Your task to perform on an android device: check storage Image 0: 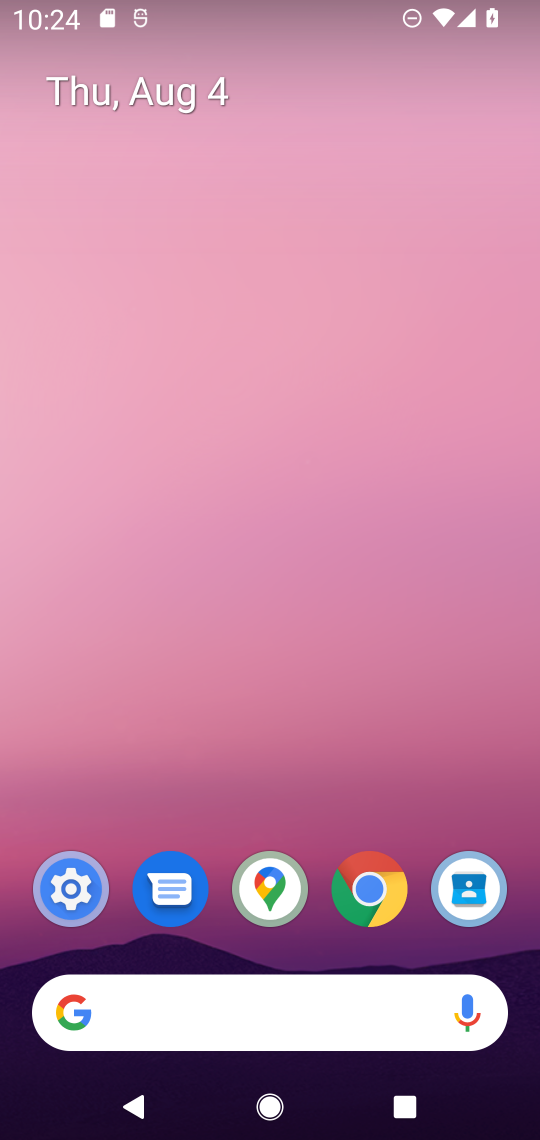
Step 0: press home button
Your task to perform on an android device: check storage Image 1: 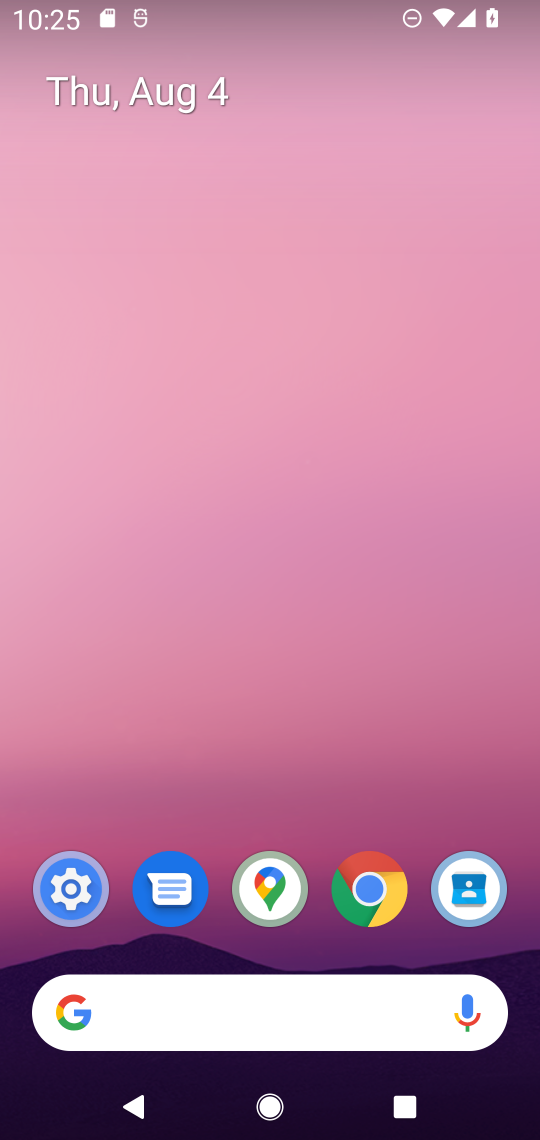
Step 1: drag from (317, 782) to (349, 300)
Your task to perform on an android device: check storage Image 2: 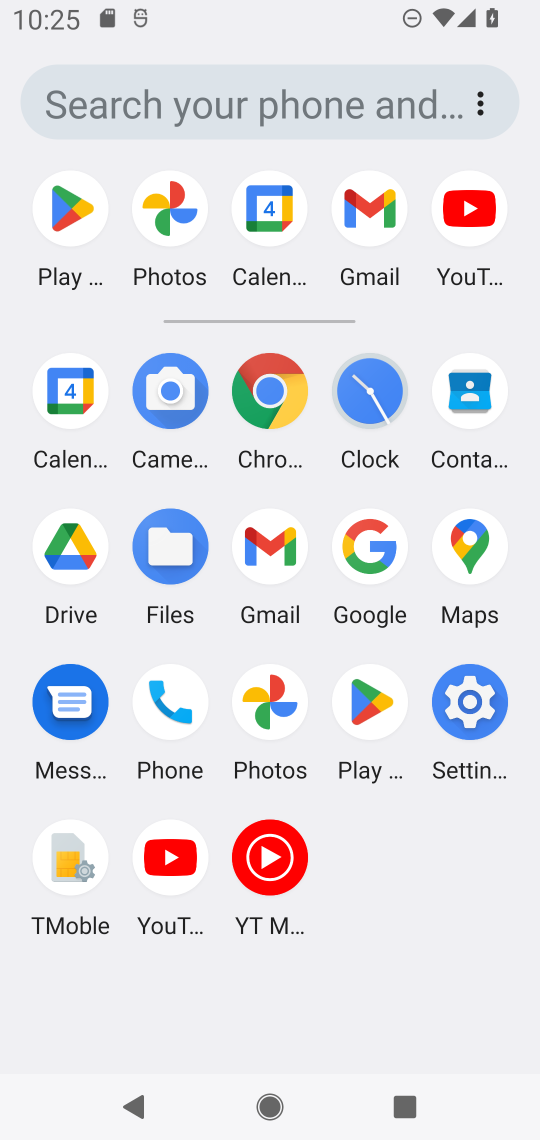
Step 2: click (480, 699)
Your task to perform on an android device: check storage Image 3: 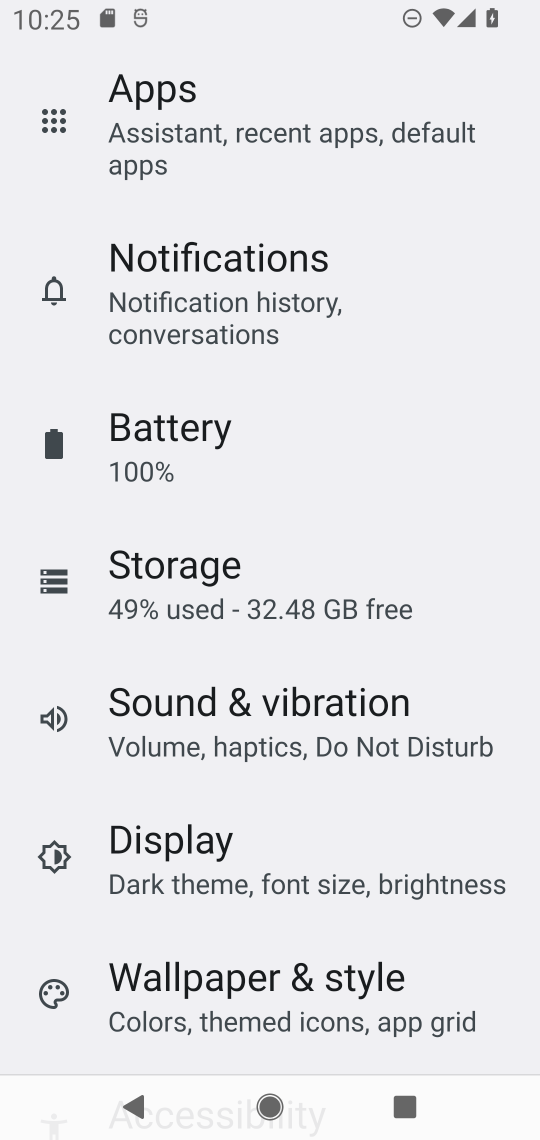
Step 3: drag from (480, 657) to (495, 533)
Your task to perform on an android device: check storage Image 4: 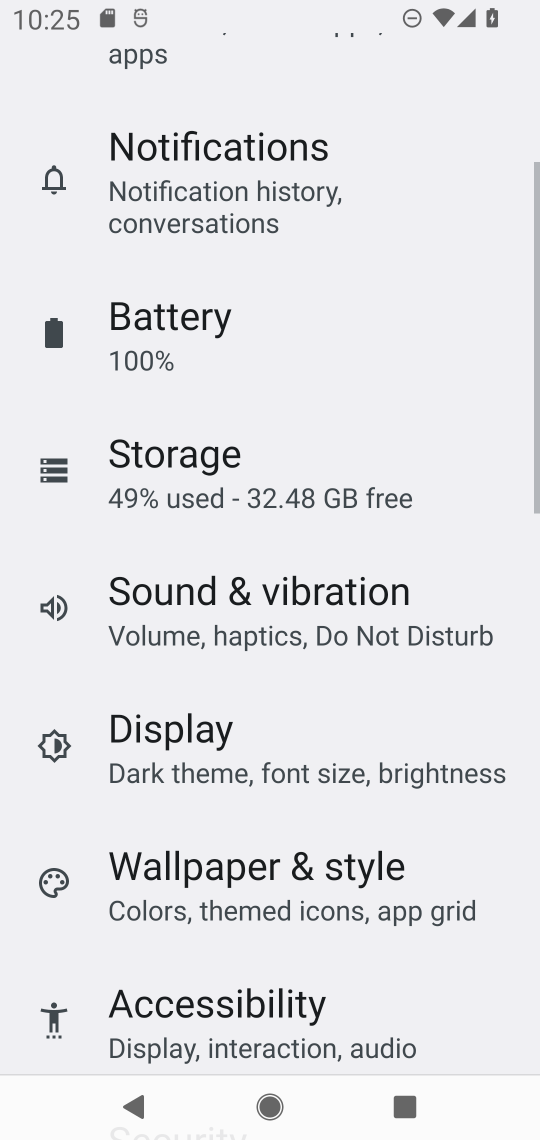
Step 4: drag from (467, 808) to (465, 631)
Your task to perform on an android device: check storage Image 5: 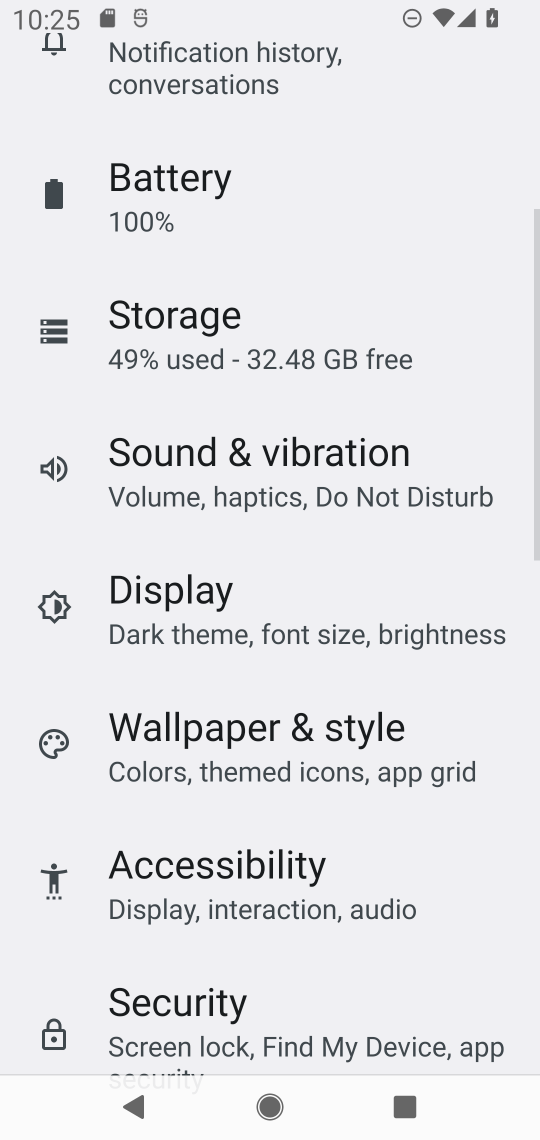
Step 5: drag from (461, 902) to (469, 715)
Your task to perform on an android device: check storage Image 6: 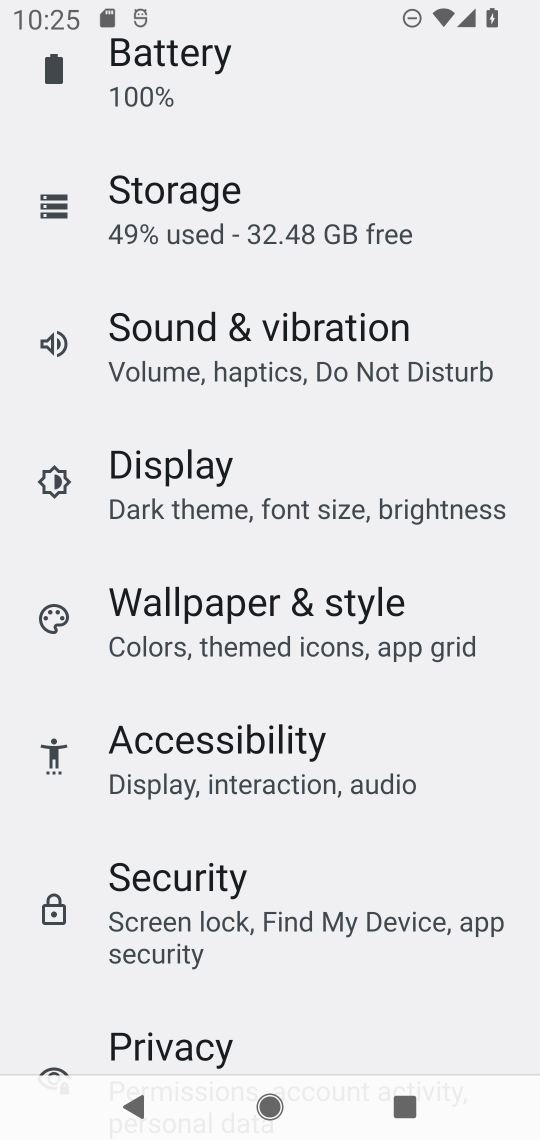
Step 6: drag from (452, 933) to (465, 672)
Your task to perform on an android device: check storage Image 7: 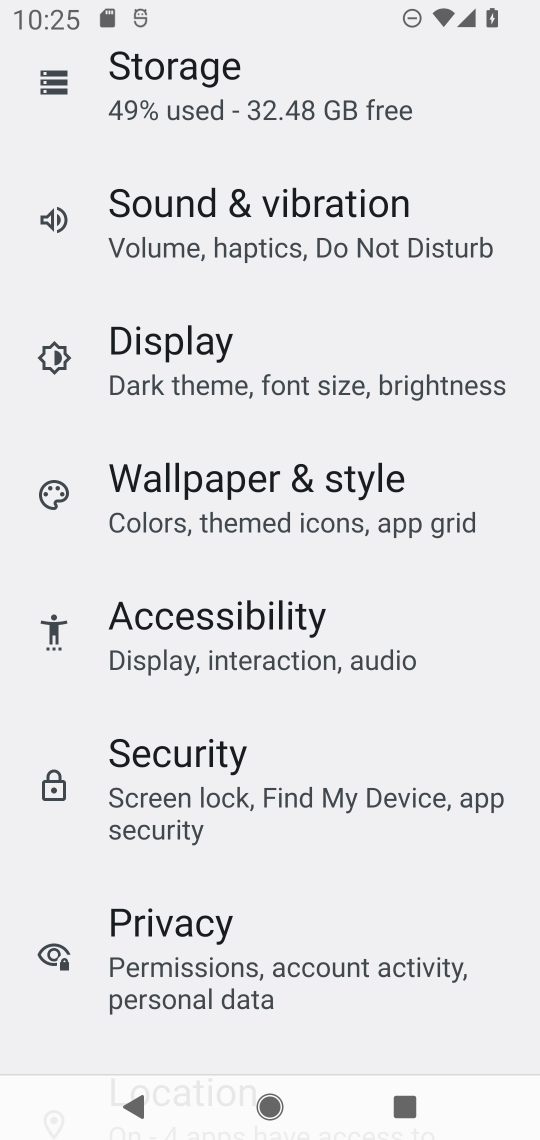
Step 7: drag from (458, 919) to (473, 709)
Your task to perform on an android device: check storage Image 8: 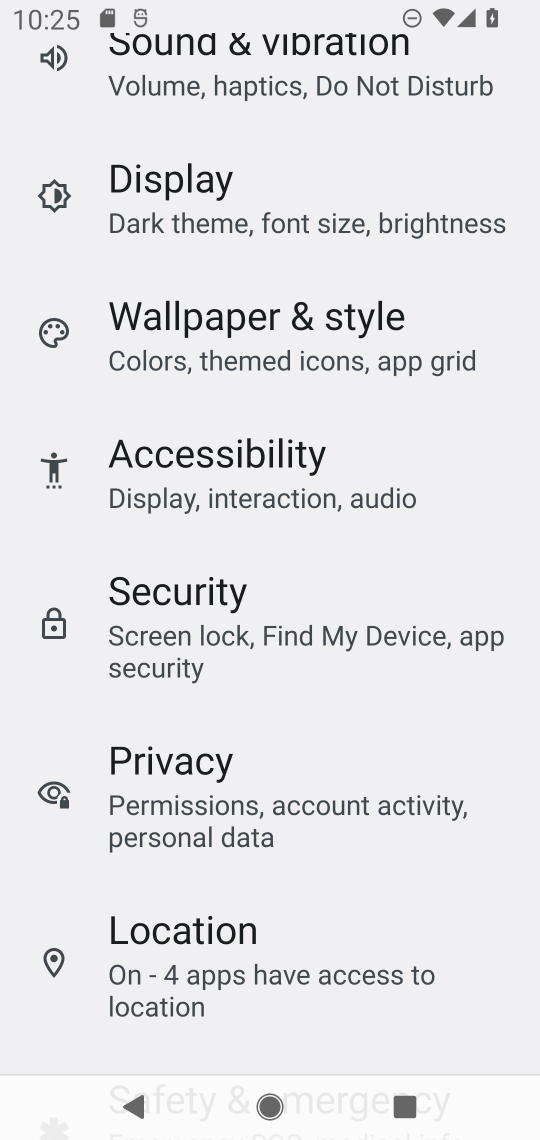
Step 8: drag from (473, 437) to (475, 653)
Your task to perform on an android device: check storage Image 9: 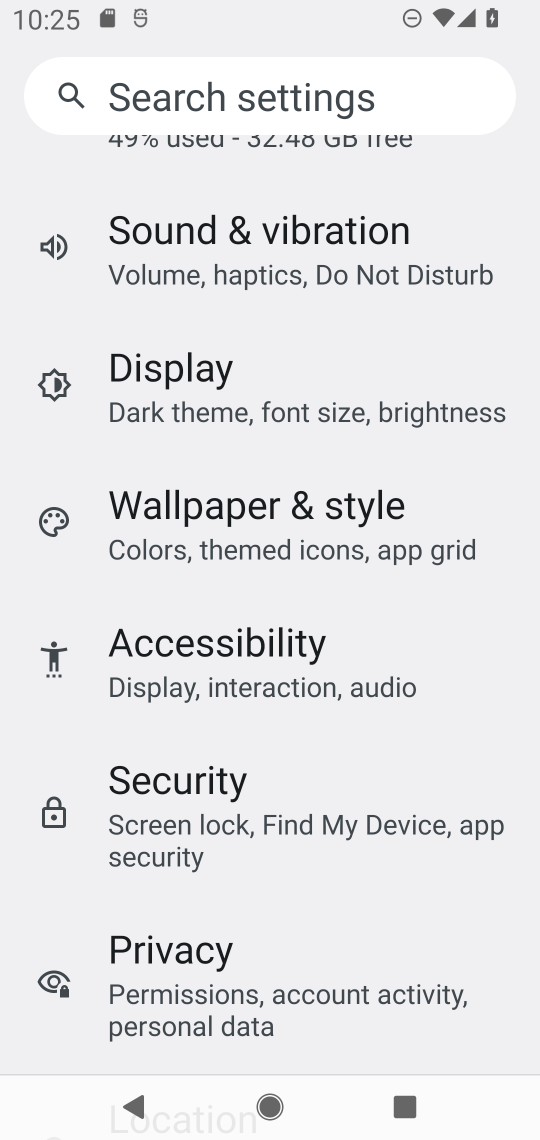
Step 9: drag from (459, 337) to (462, 570)
Your task to perform on an android device: check storage Image 10: 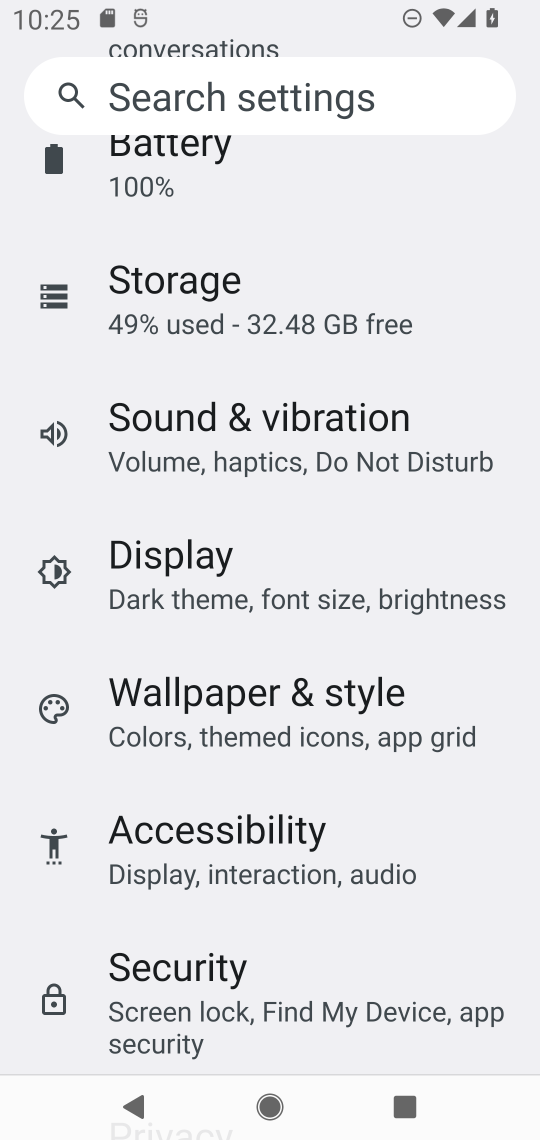
Step 10: drag from (454, 242) to (453, 642)
Your task to perform on an android device: check storage Image 11: 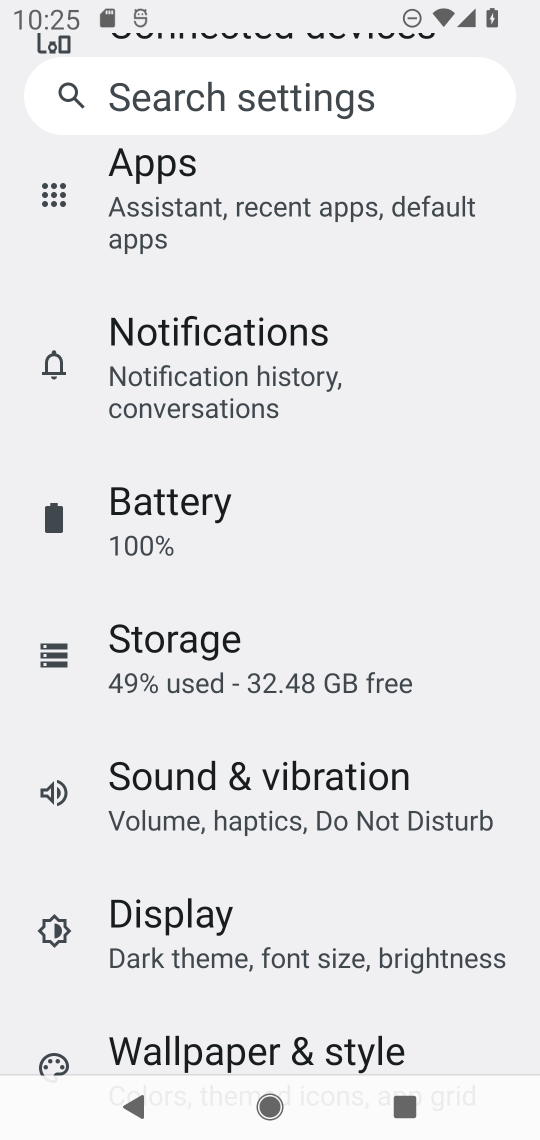
Step 11: click (261, 679)
Your task to perform on an android device: check storage Image 12: 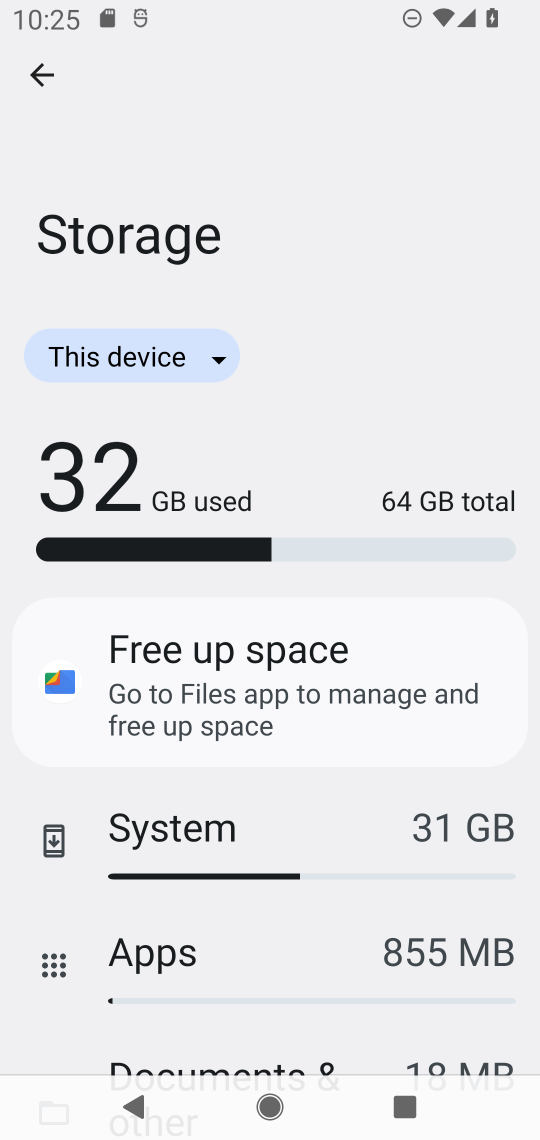
Step 12: task complete